Your task to perform on an android device: open wifi settings Image 0: 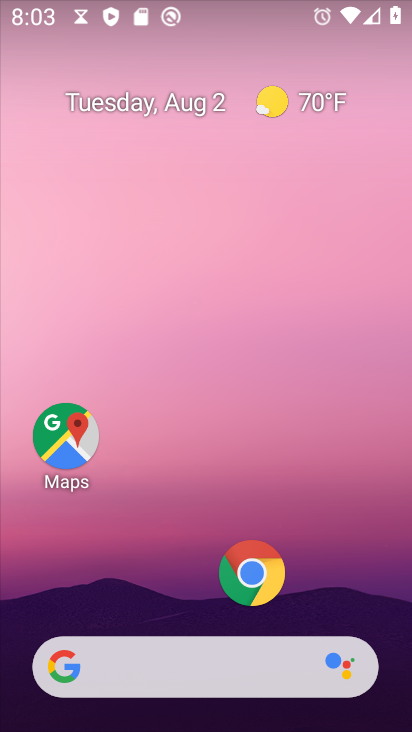
Step 0: press home button
Your task to perform on an android device: open wifi settings Image 1: 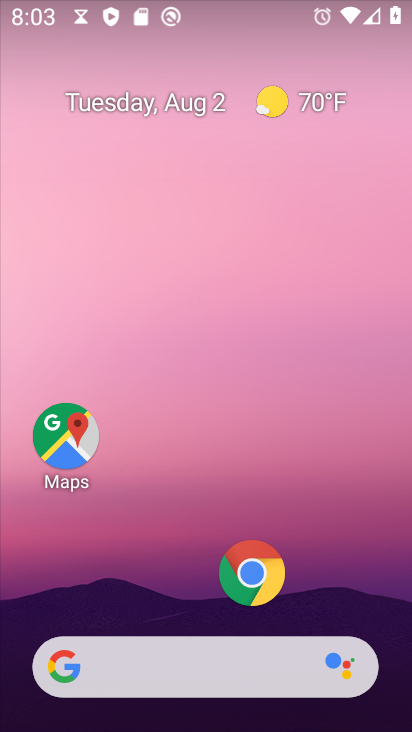
Step 1: drag from (203, 591) to (186, 46)
Your task to perform on an android device: open wifi settings Image 2: 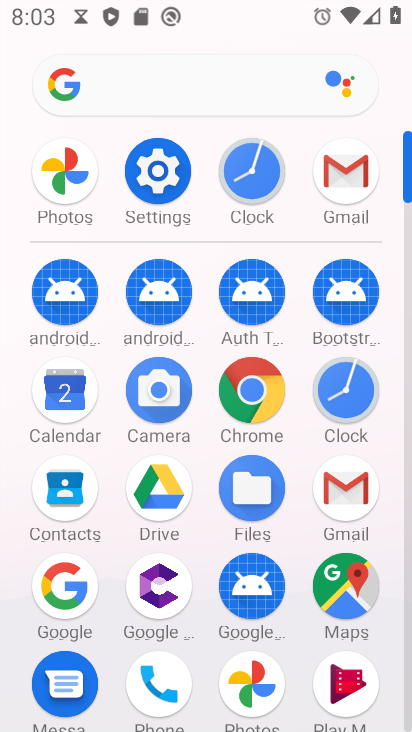
Step 2: click (155, 161)
Your task to perform on an android device: open wifi settings Image 3: 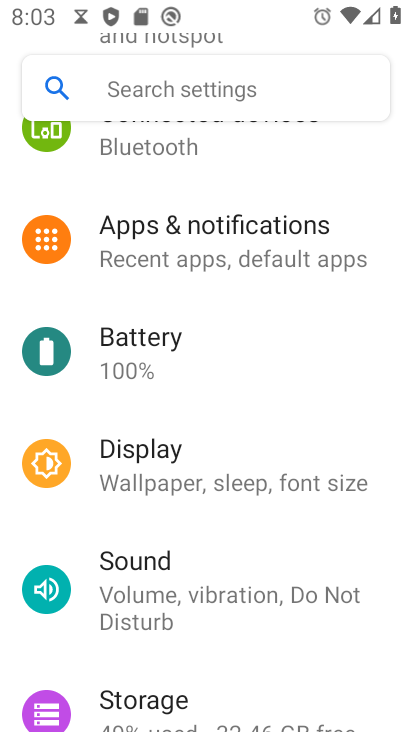
Step 3: drag from (194, 184) to (222, 627)
Your task to perform on an android device: open wifi settings Image 4: 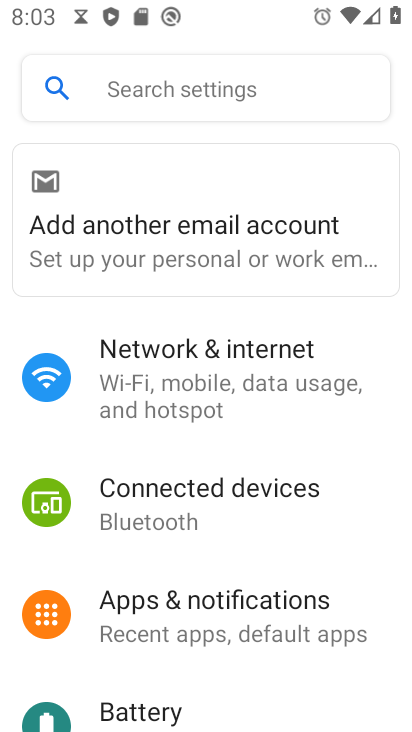
Step 4: click (82, 382)
Your task to perform on an android device: open wifi settings Image 5: 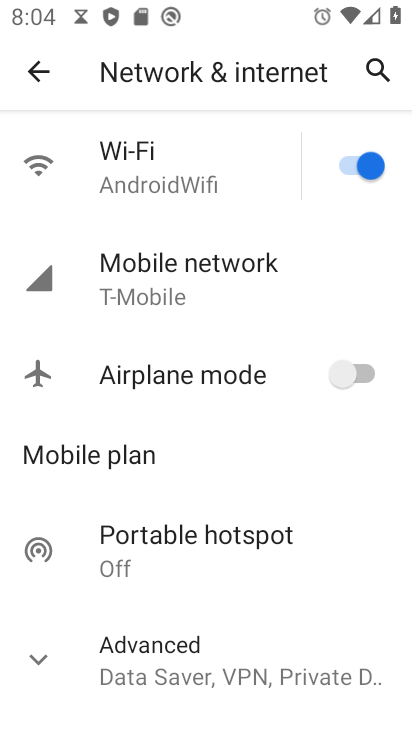
Step 5: click (169, 165)
Your task to perform on an android device: open wifi settings Image 6: 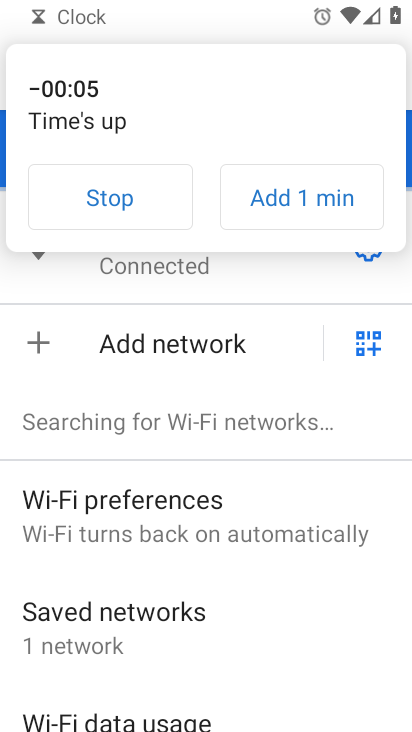
Step 6: click (132, 203)
Your task to perform on an android device: open wifi settings Image 7: 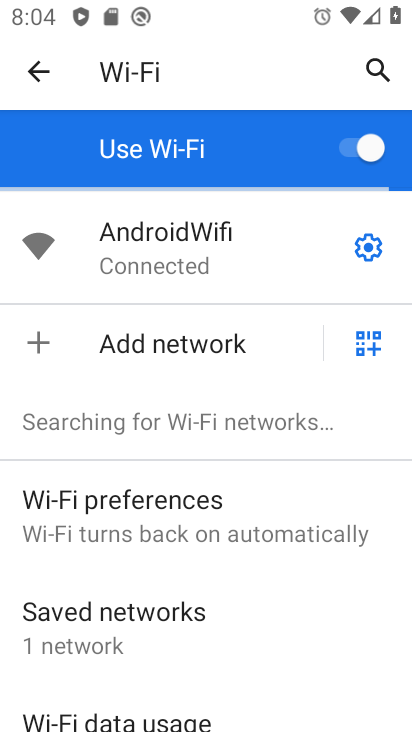
Step 7: task complete